Your task to perform on an android device: turn off location Image 0: 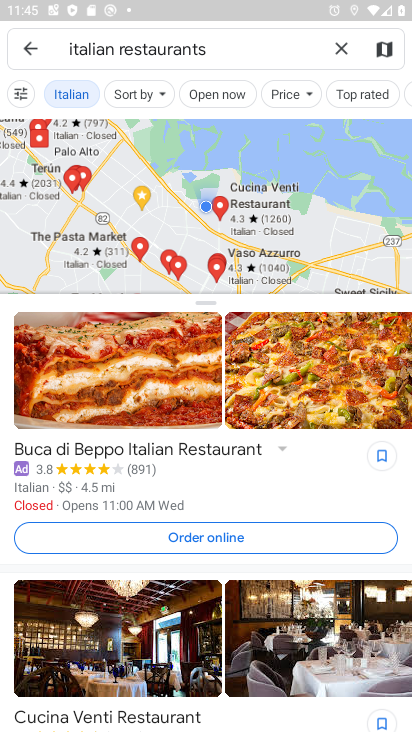
Step 0: press home button
Your task to perform on an android device: turn off location Image 1: 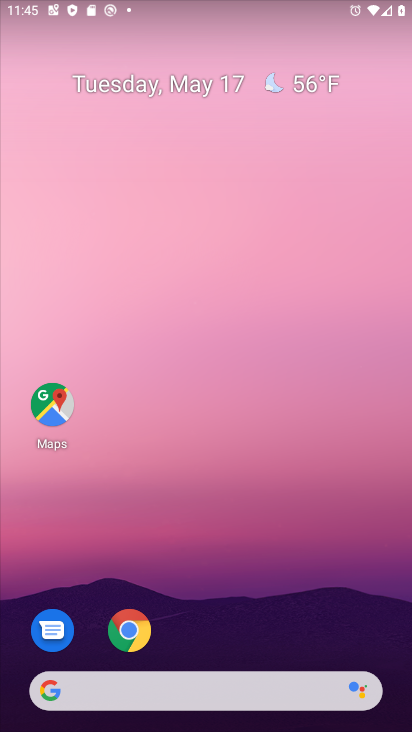
Step 1: drag from (318, 550) to (313, 141)
Your task to perform on an android device: turn off location Image 2: 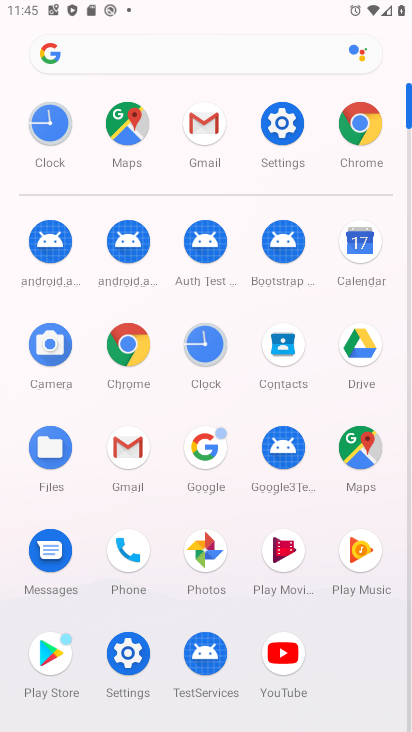
Step 2: click (115, 657)
Your task to perform on an android device: turn off location Image 3: 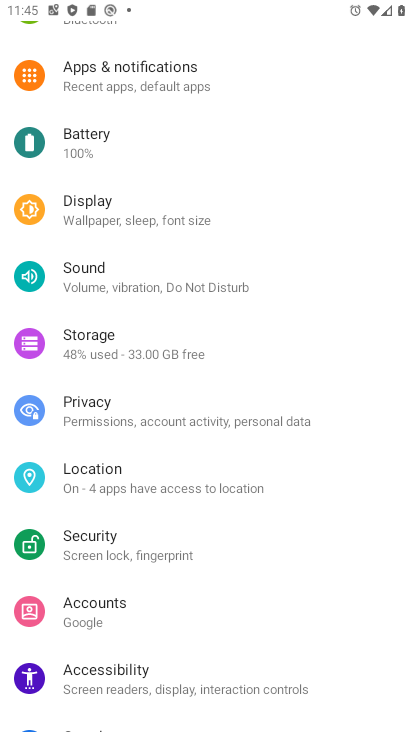
Step 3: click (119, 478)
Your task to perform on an android device: turn off location Image 4: 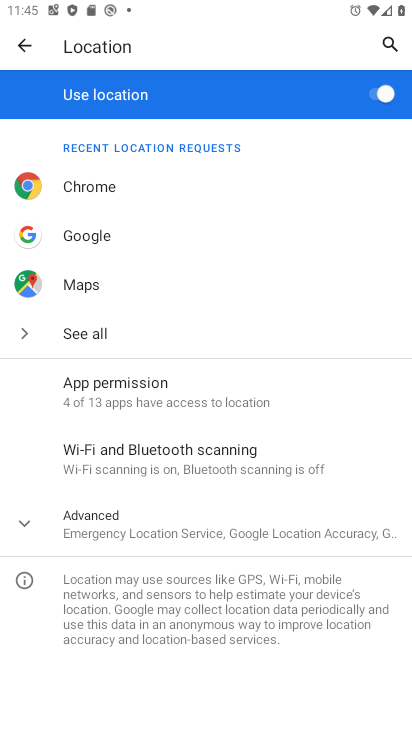
Step 4: click (376, 99)
Your task to perform on an android device: turn off location Image 5: 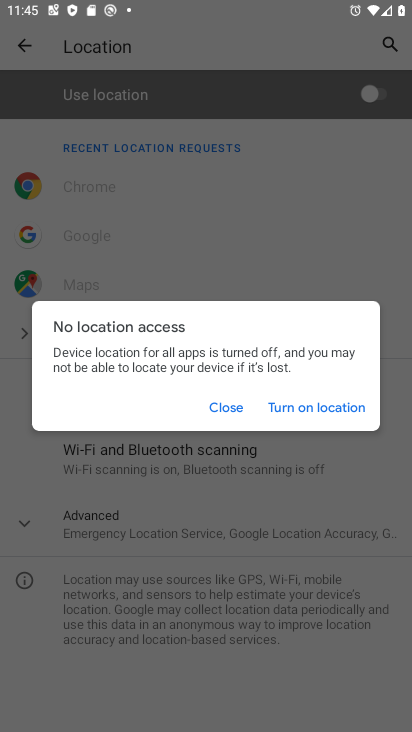
Step 5: click (217, 412)
Your task to perform on an android device: turn off location Image 6: 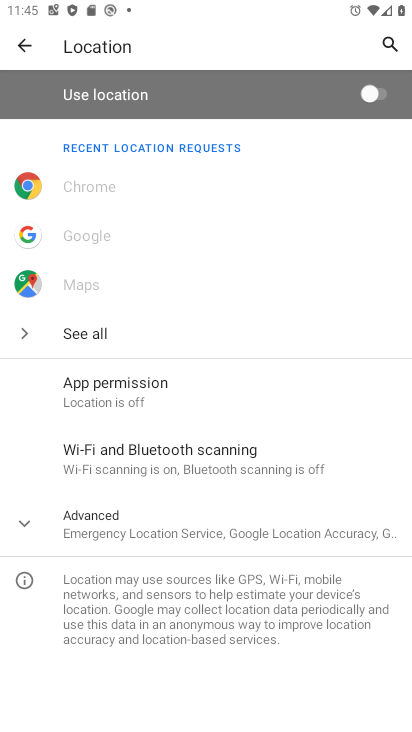
Step 6: task complete